Your task to perform on an android device: Open notification settings Image 0: 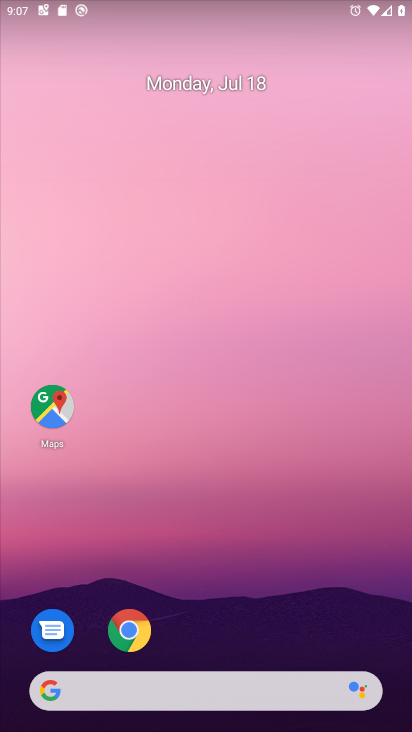
Step 0: drag from (181, 637) to (186, 169)
Your task to perform on an android device: Open notification settings Image 1: 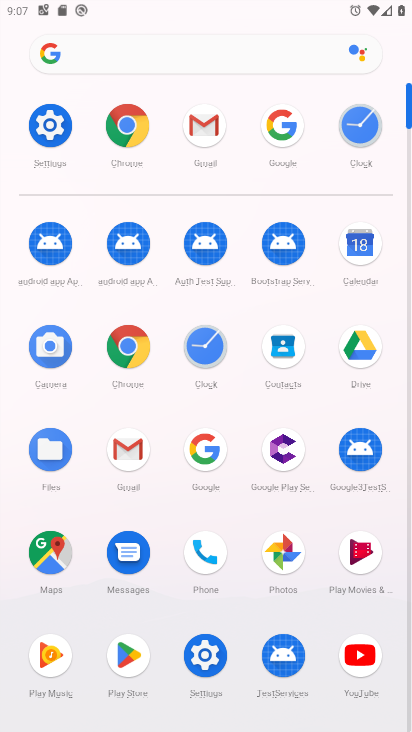
Step 1: click (36, 131)
Your task to perform on an android device: Open notification settings Image 2: 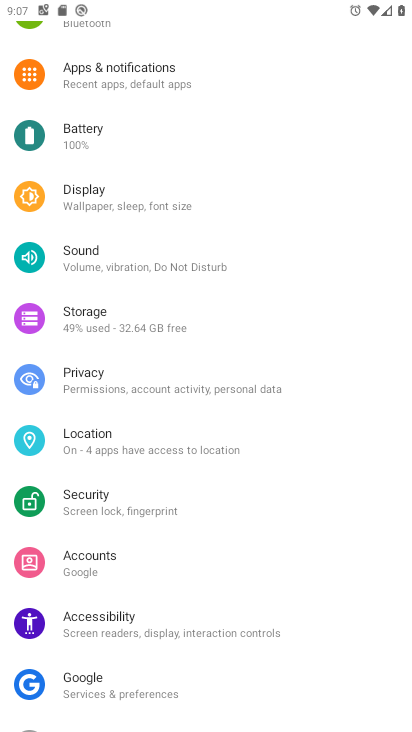
Step 2: click (176, 77)
Your task to perform on an android device: Open notification settings Image 3: 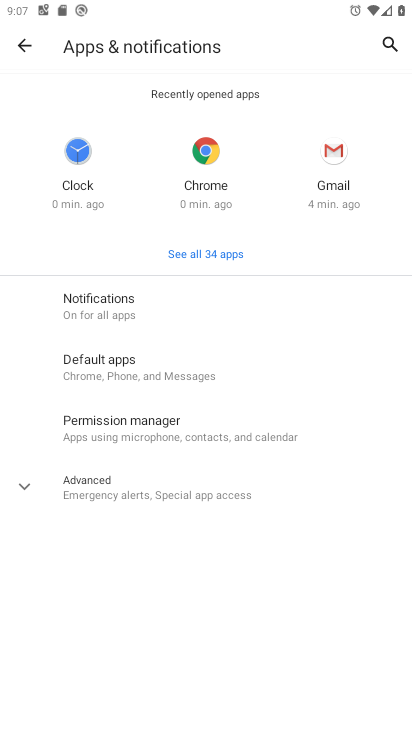
Step 3: click (169, 304)
Your task to perform on an android device: Open notification settings Image 4: 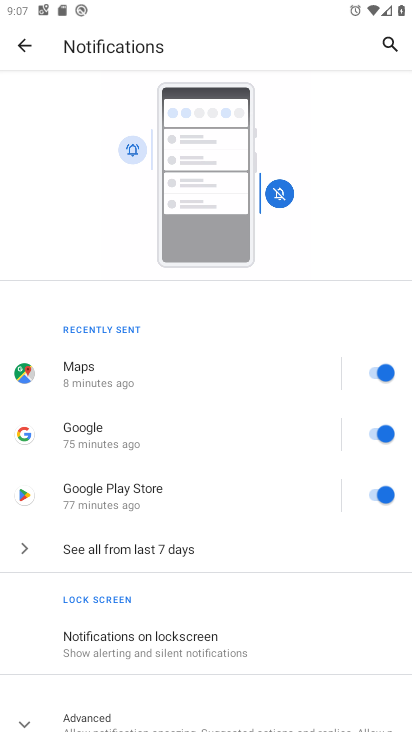
Step 4: task complete